Your task to perform on an android device: Go to sound settings Image 0: 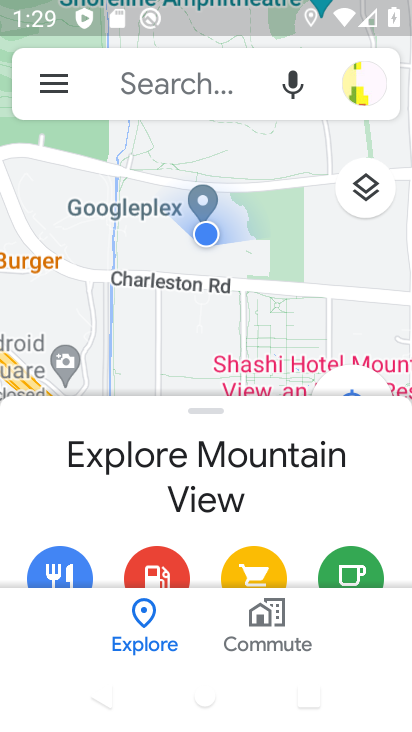
Step 0: press home button
Your task to perform on an android device: Go to sound settings Image 1: 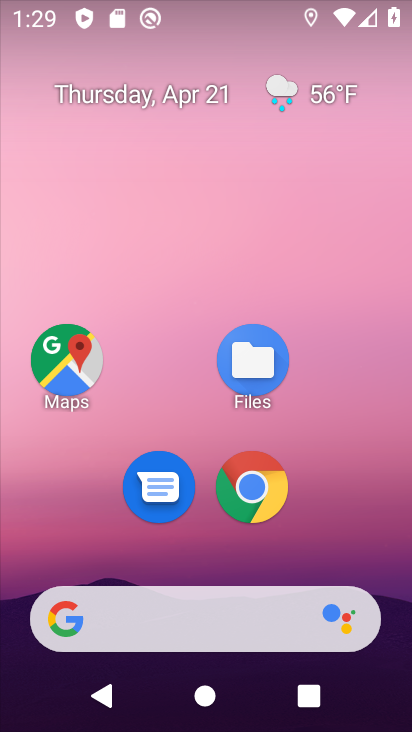
Step 1: drag from (376, 529) to (368, 186)
Your task to perform on an android device: Go to sound settings Image 2: 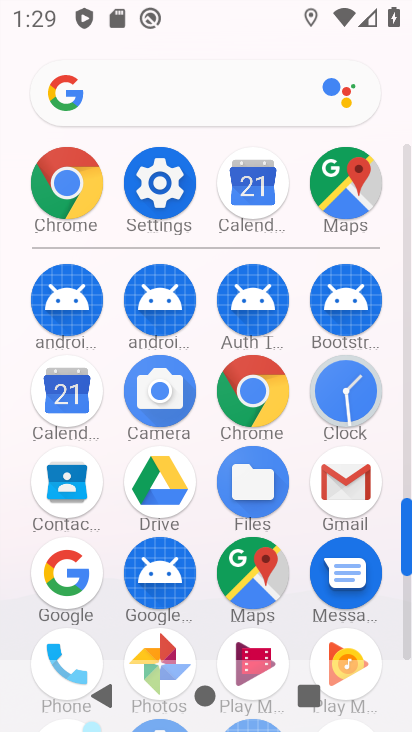
Step 2: click (169, 196)
Your task to perform on an android device: Go to sound settings Image 3: 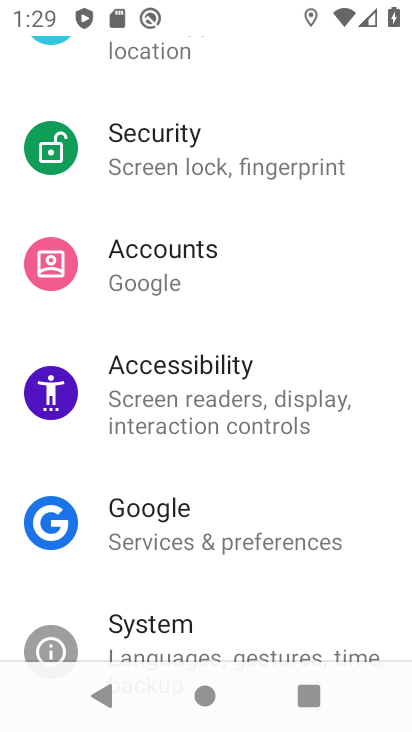
Step 3: drag from (300, 575) to (321, 289)
Your task to perform on an android device: Go to sound settings Image 4: 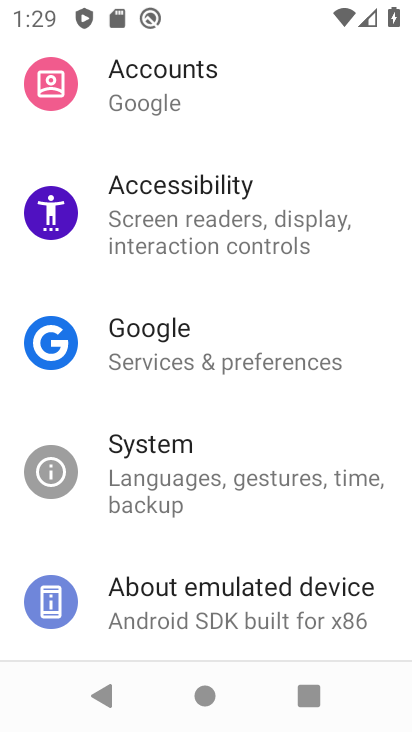
Step 4: drag from (251, 111) to (233, 485)
Your task to perform on an android device: Go to sound settings Image 5: 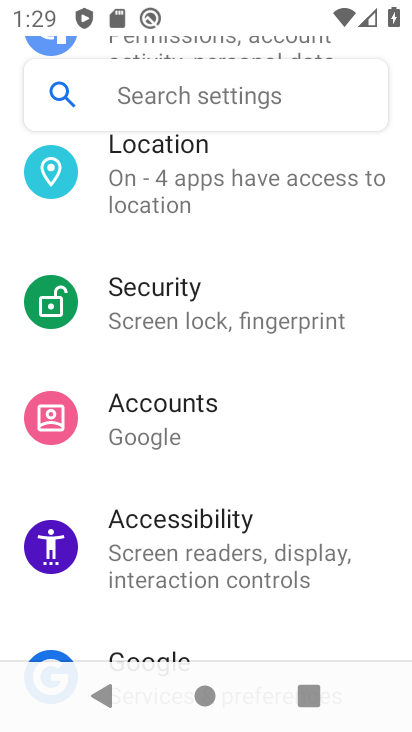
Step 5: drag from (250, 230) to (268, 565)
Your task to perform on an android device: Go to sound settings Image 6: 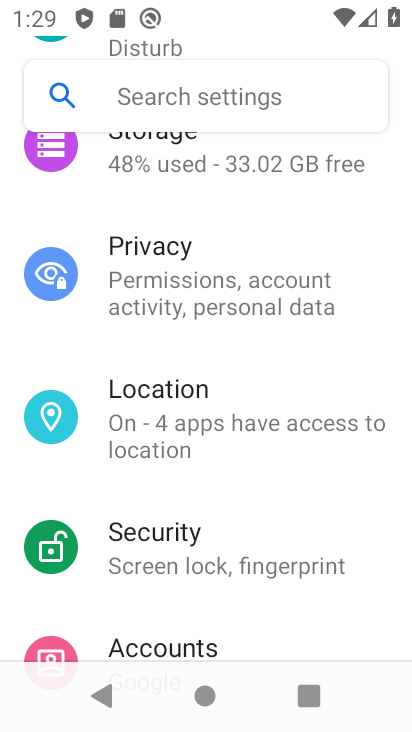
Step 6: drag from (236, 252) to (247, 539)
Your task to perform on an android device: Go to sound settings Image 7: 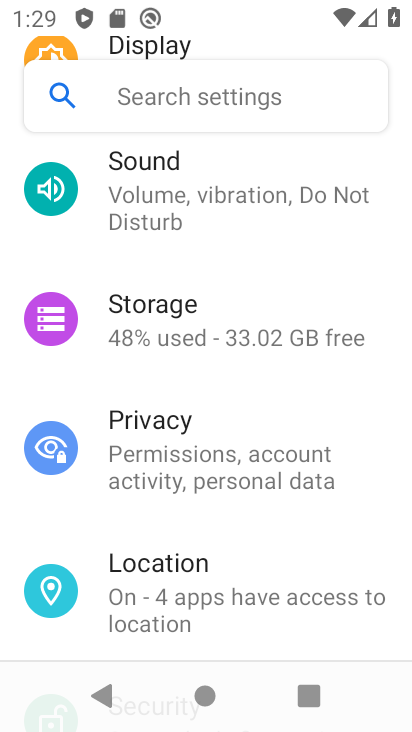
Step 7: click (164, 178)
Your task to perform on an android device: Go to sound settings Image 8: 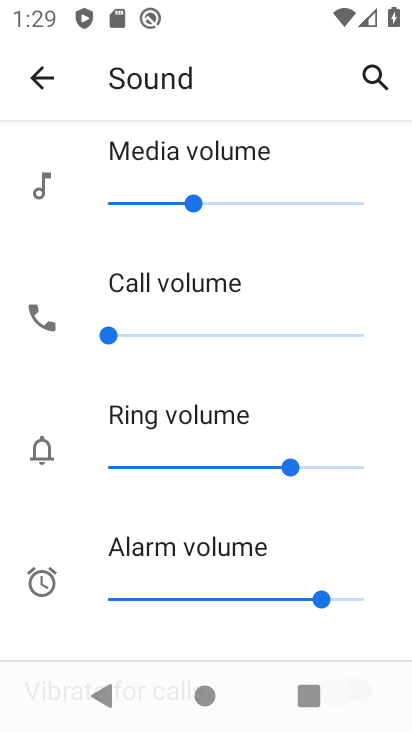
Step 8: task complete